Your task to perform on an android device: What's the weather going to be this weekend? Image 0: 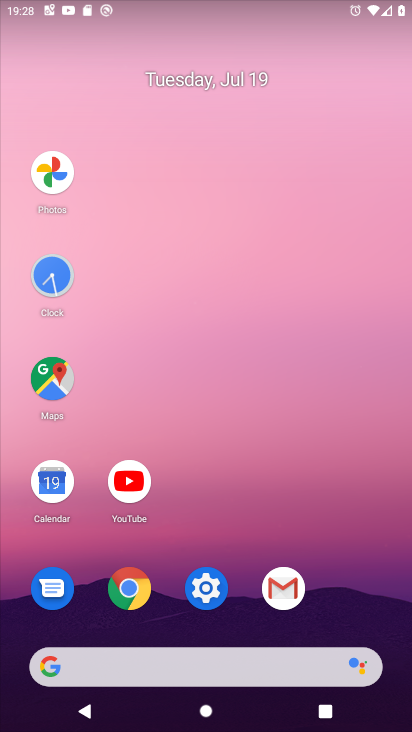
Step 0: click (217, 673)
Your task to perform on an android device: What's the weather going to be this weekend? Image 1: 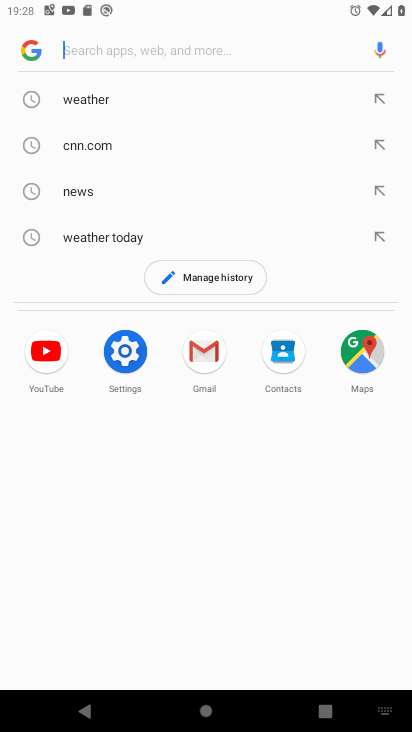
Step 1: click (86, 99)
Your task to perform on an android device: What's the weather going to be this weekend? Image 2: 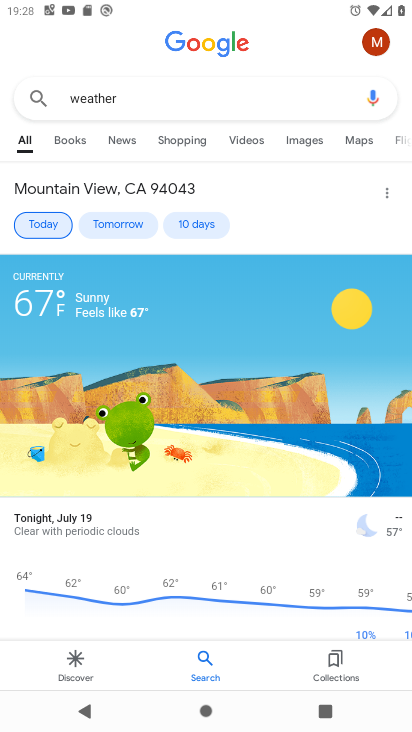
Step 2: click (196, 215)
Your task to perform on an android device: What's the weather going to be this weekend? Image 3: 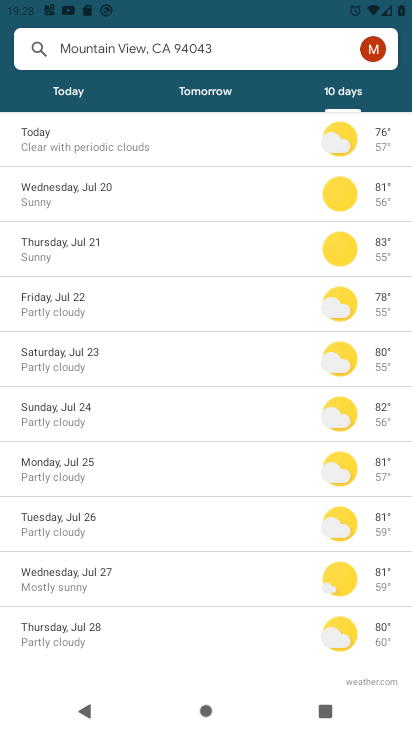
Step 3: task complete